Your task to perform on an android device: turn on wifi Image 0: 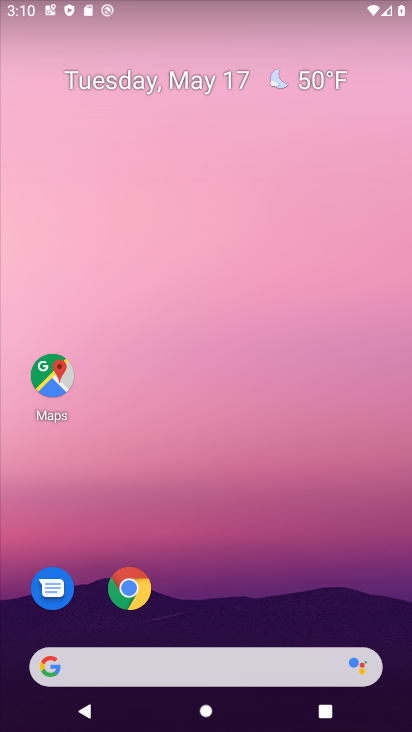
Step 0: drag from (176, 604) to (261, 71)
Your task to perform on an android device: turn on wifi Image 1: 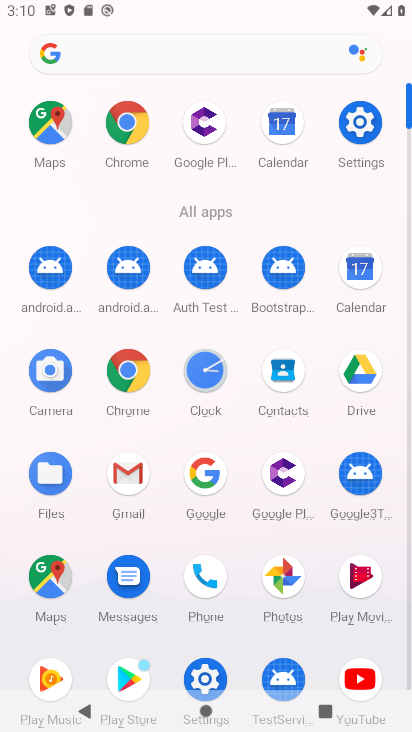
Step 1: drag from (179, 564) to (265, 268)
Your task to perform on an android device: turn on wifi Image 2: 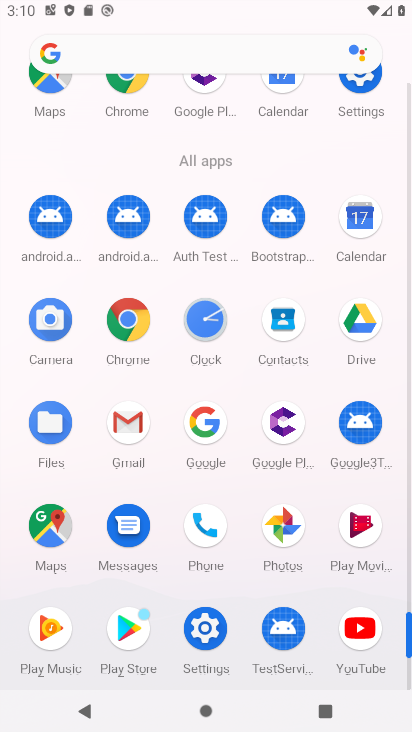
Step 2: click (204, 630)
Your task to perform on an android device: turn on wifi Image 3: 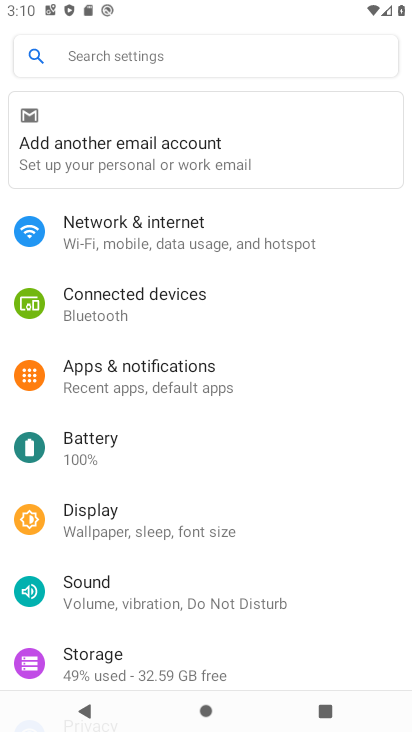
Step 3: click (189, 237)
Your task to perform on an android device: turn on wifi Image 4: 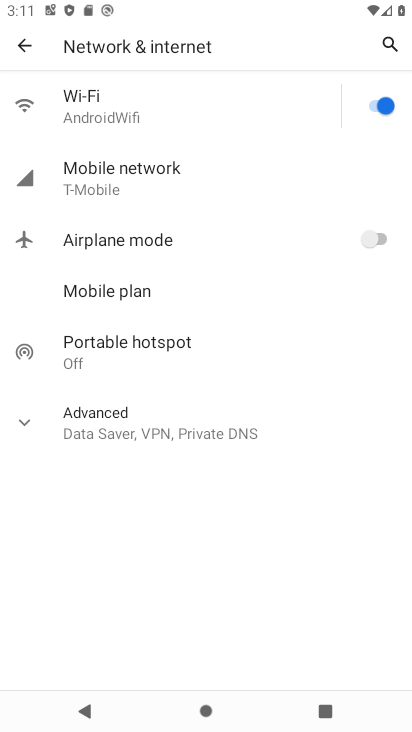
Step 4: task complete